Your task to perform on an android device: allow cookies in the chrome app Image 0: 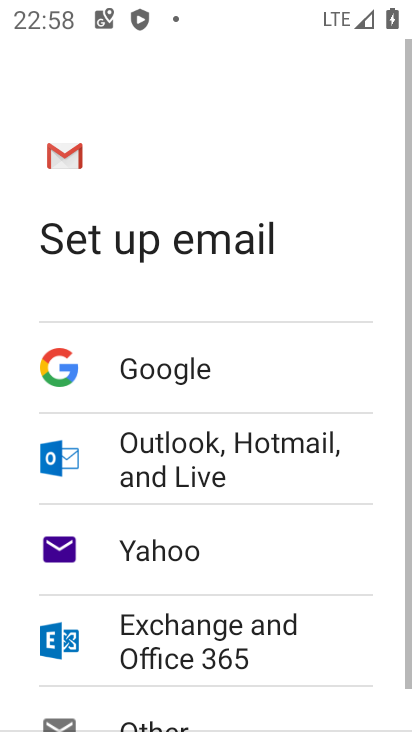
Step 0: press home button
Your task to perform on an android device: allow cookies in the chrome app Image 1: 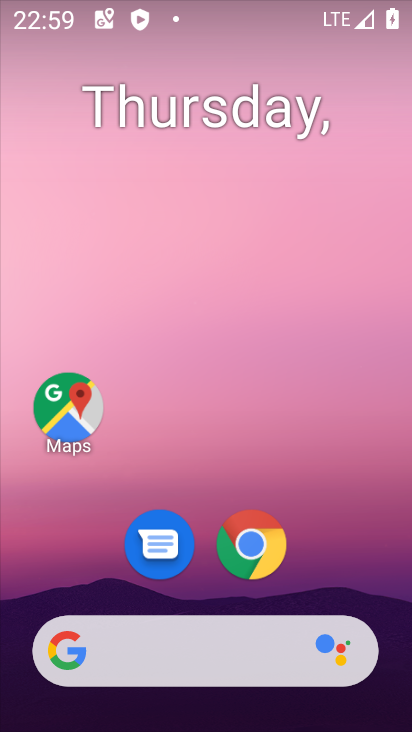
Step 1: click (243, 551)
Your task to perform on an android device: allow cookies in the chrome app Image 2: 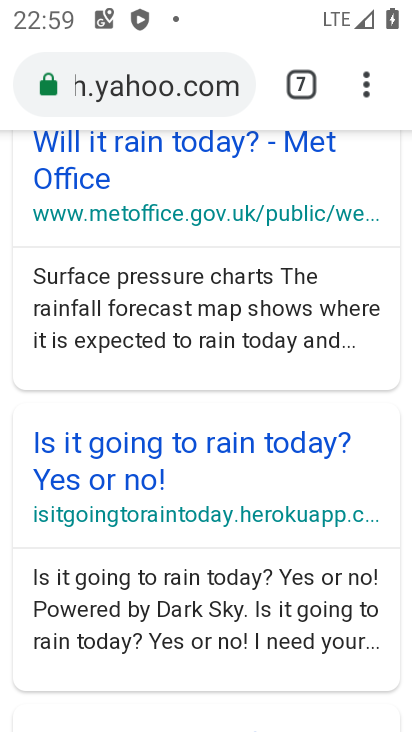
Step 2: click (365, 75)
Your task to perform on an android device: allow cookies in the chrome app Image 3: 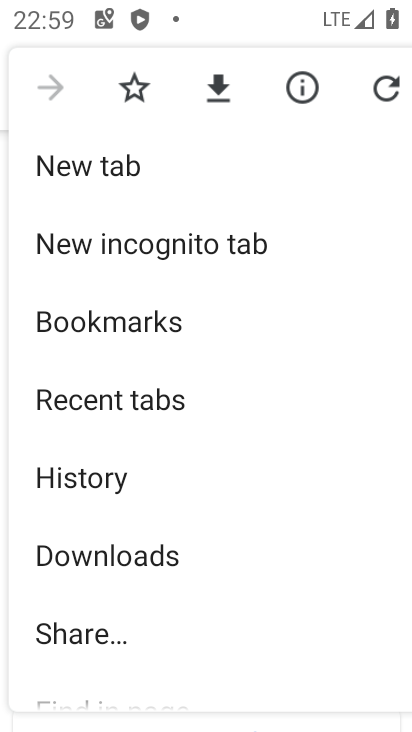
Step 3: drag from (96, 633) to (119, 147)
Your task to perform on an android device: allow cookies in the chrome app Image 4: 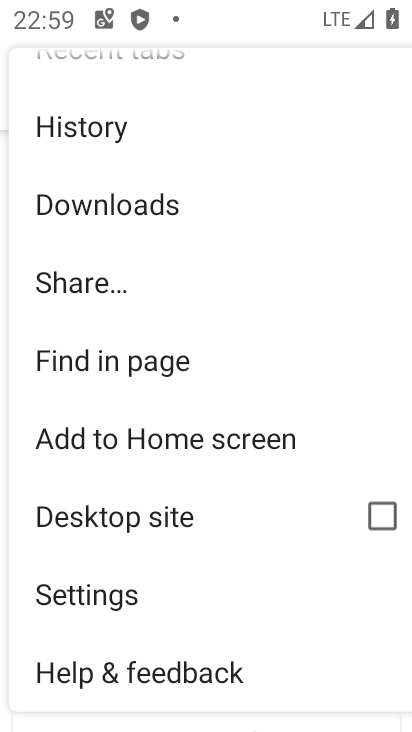
Step 4: click (78, 594)
Your task to perform on an android device: allow cookies in the chrome app Image 5: 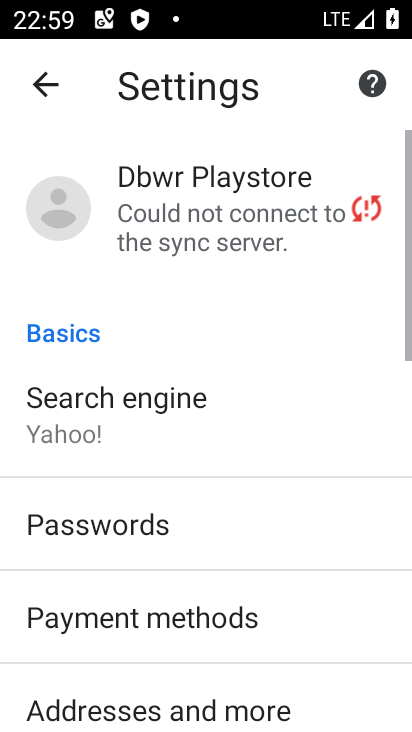
Step 5: drag from (103, 677) to (96, 113)
Your task to perform on an android device: allow cookies in the chrome app Image 6: 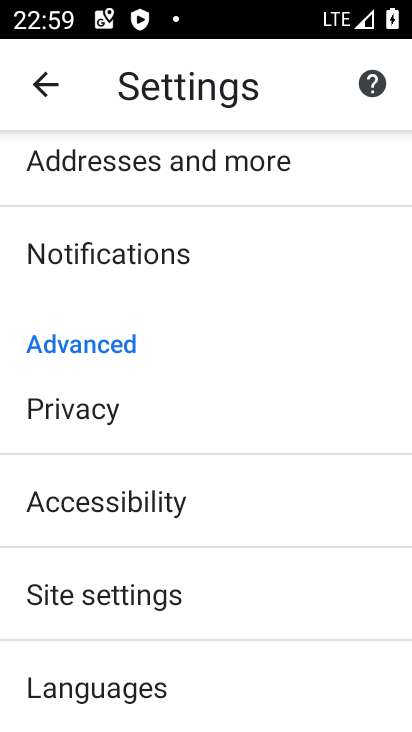
Step 6: click (88, 587)
Your task to perform on an android device: allow cookies in the chrome app Image 7: 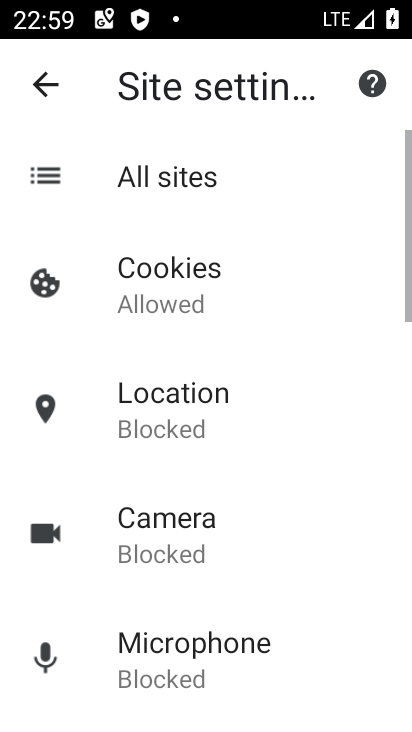
Step 7: click (204, 286)
Your task to perform on an android device: allow cookies in the chrome app Image 8: 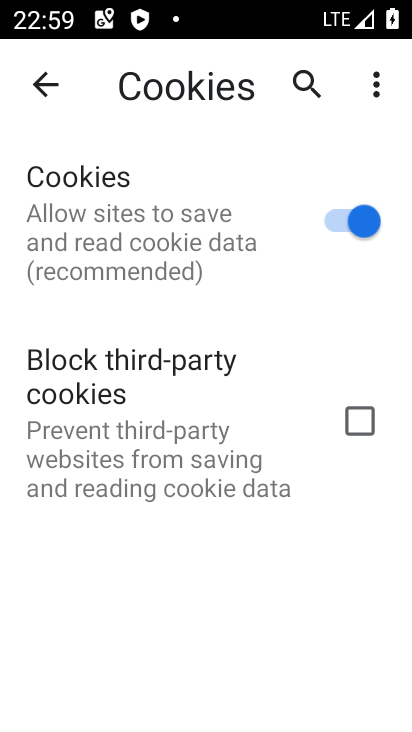
Step 8: task complete